Your task to perform on an android device: open wifi settings Image 0: 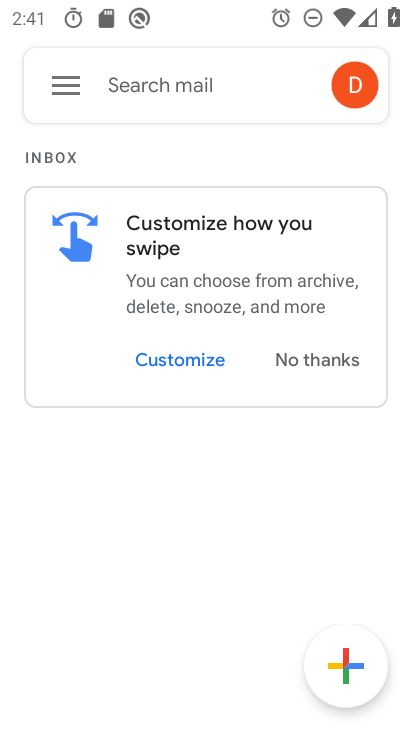
Step 0: press home button
Your task to perform on an android device: open wifi settings Image 1: 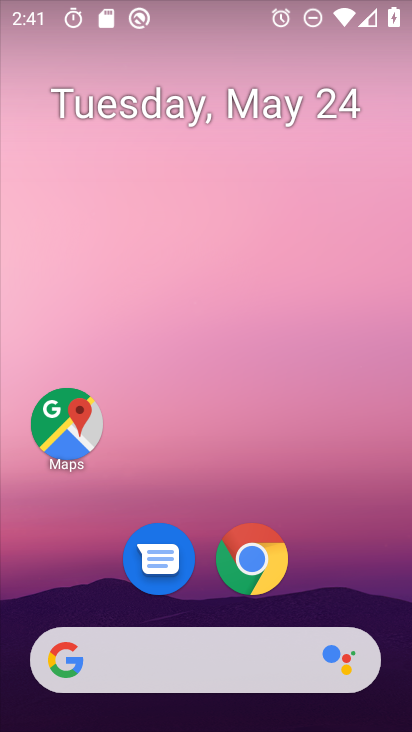
Step 1: drag from (399, 703) to (344, 172)
Your task to perform on an android device: open wifi settings Image 2: 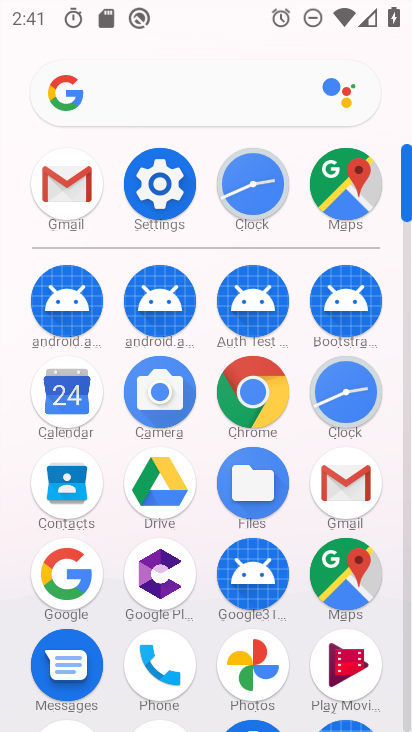
Step 2: click (164, 187)
Your task to perform on an android device: open wifi settings Image 3: 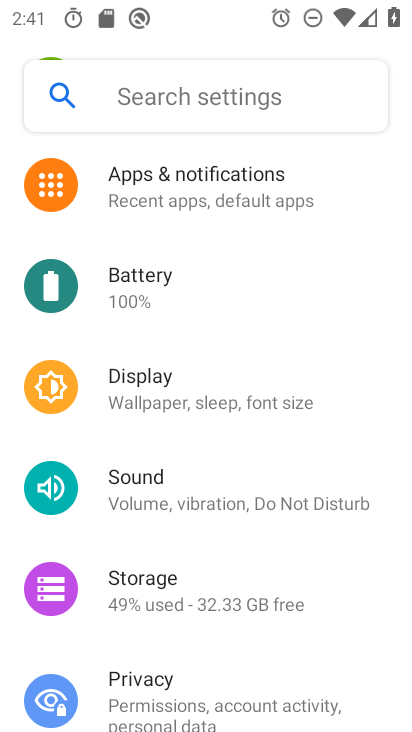
Step 3: drag from (310, 168) to (303, 524)
Your task to perform on an android device: open wifi settings Image 4: 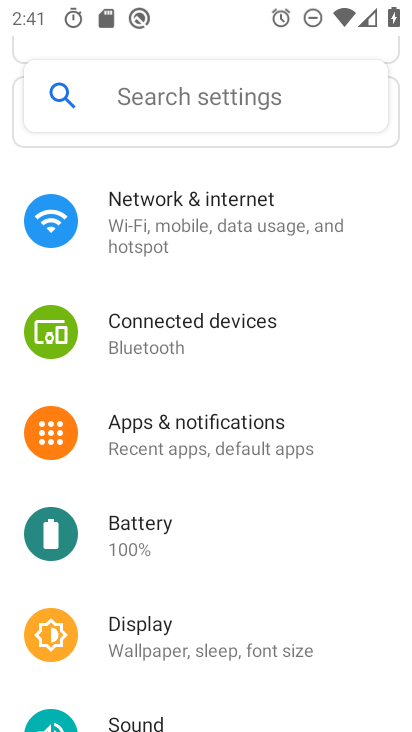
Step 4: click (164, 204)
Your task to perform on an android device: open wifi settings Image 5: 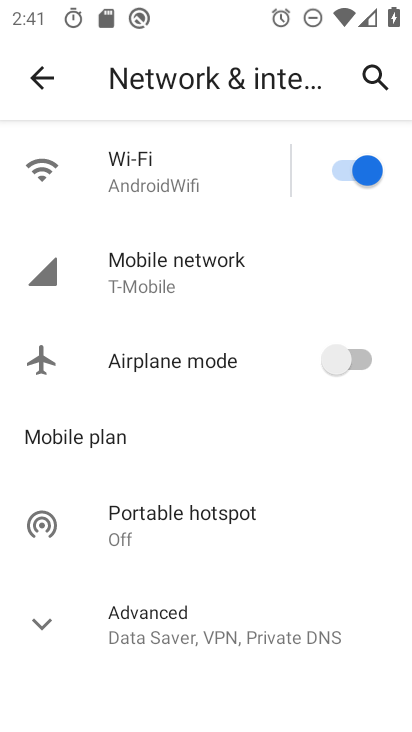
Step 5: click (192, 181)
Your task to perform on an android device: open wifi settings Image 6: 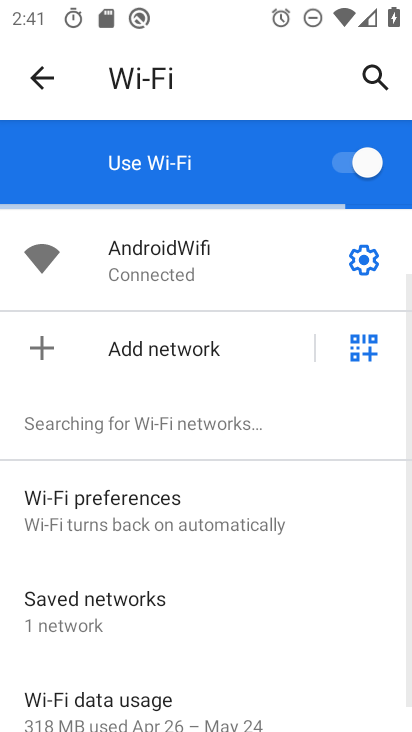
Step 6: click (358, 258)
Your task to perform on an android device: open wifi settings Image 7: 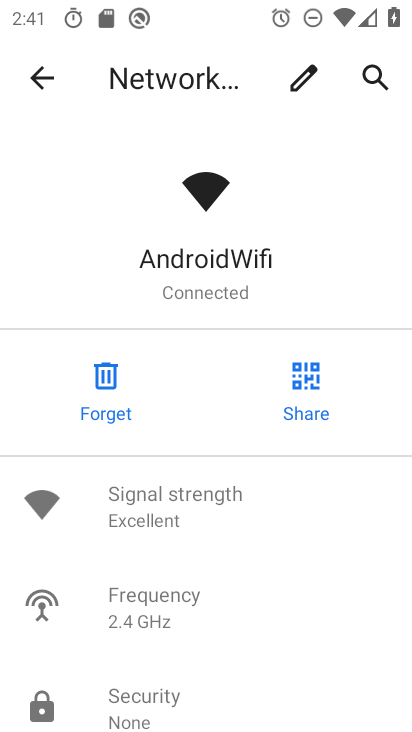
Step 7: task complete